Your task to perform on an android device: Search for "logitech g933" on bestbuy, select the first entry, add it to the cart, then select checkout. Image 0: 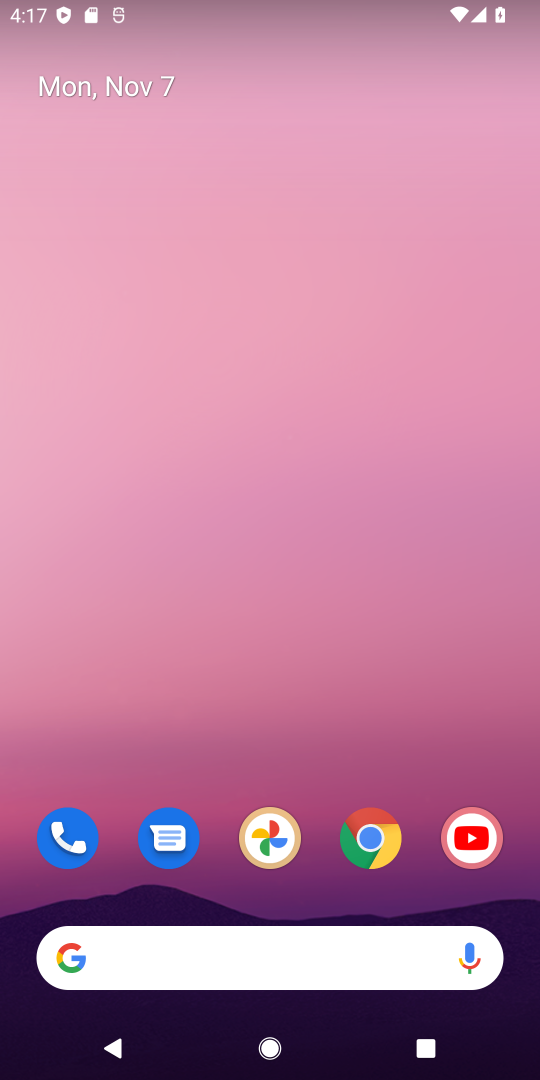
Step 0: click (371, 847)
Your task to perform on an android device: Search for "logitech g933" on bestbuy, select the first entry, add it to the cart, then select checkout. Image 1: 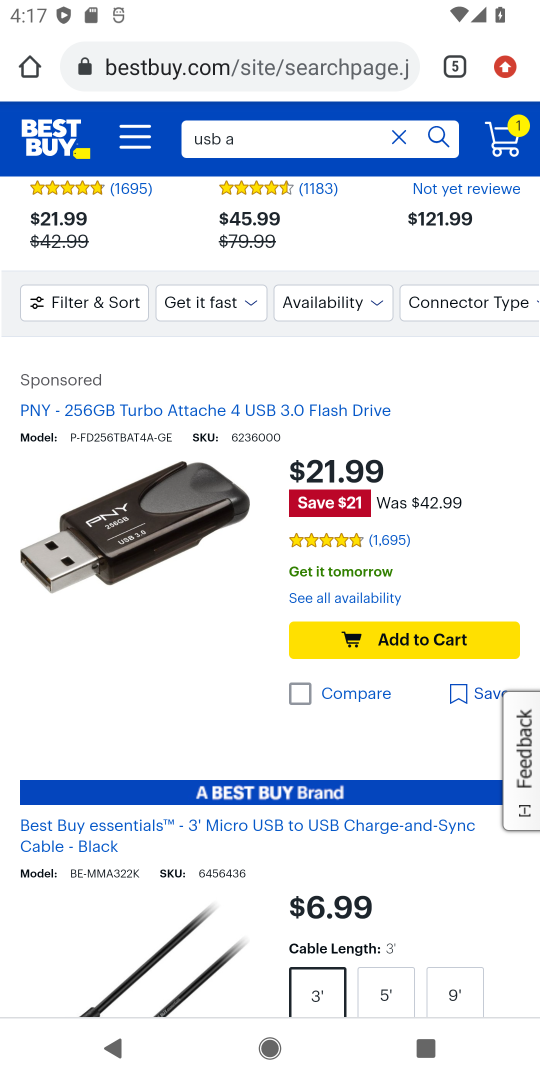
Step 1: click (400, 142)
Your task to perform on an android device: Search for "logitech g933" on bestbuy, select the first entry, add it to the cart, then select checkout. Image 2: 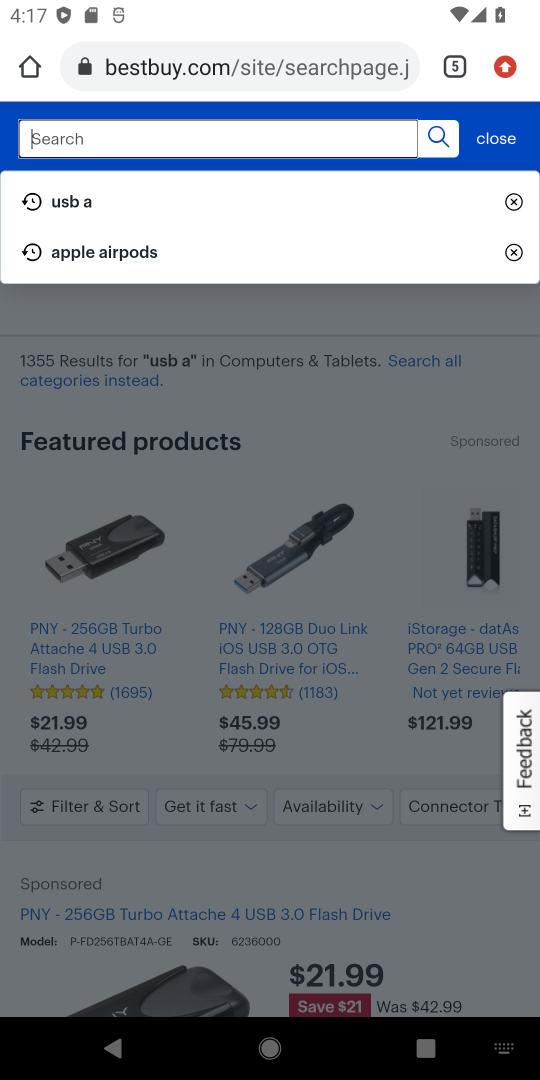
Step 2: type "logitech g933"
Your task to perform on an android device: Search for "logitech g933" on bestbuy, select the first entry, add it to the cart, then select checkout. Image 3: 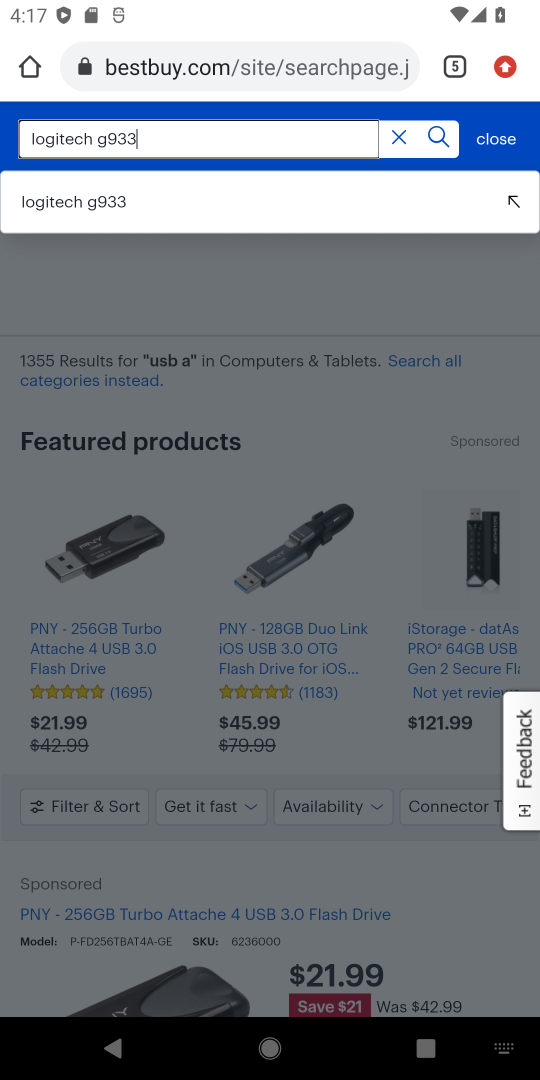
Step 3: click (438, 129)
Your task to perform on an android device: Search for "logitech g933" on bestbuy, select the first entry, add it to the cart, then select checkout. Image 4: 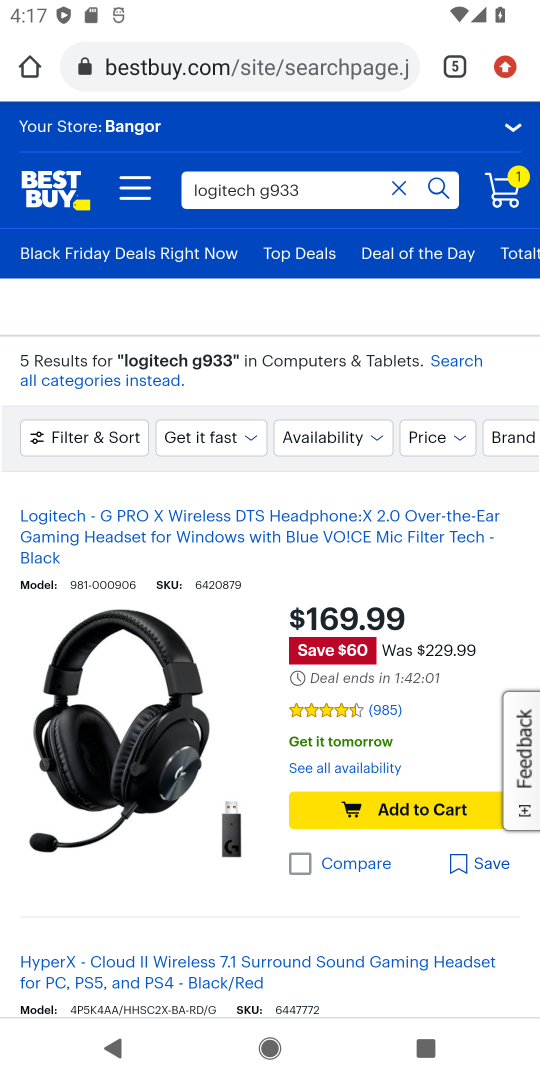
Step 4: click (398, 816)
Your task to perform on an android device: Search for "logitech g933" on bestbuy, select the first entry, add it to the cart, then select checkout. Image 5: 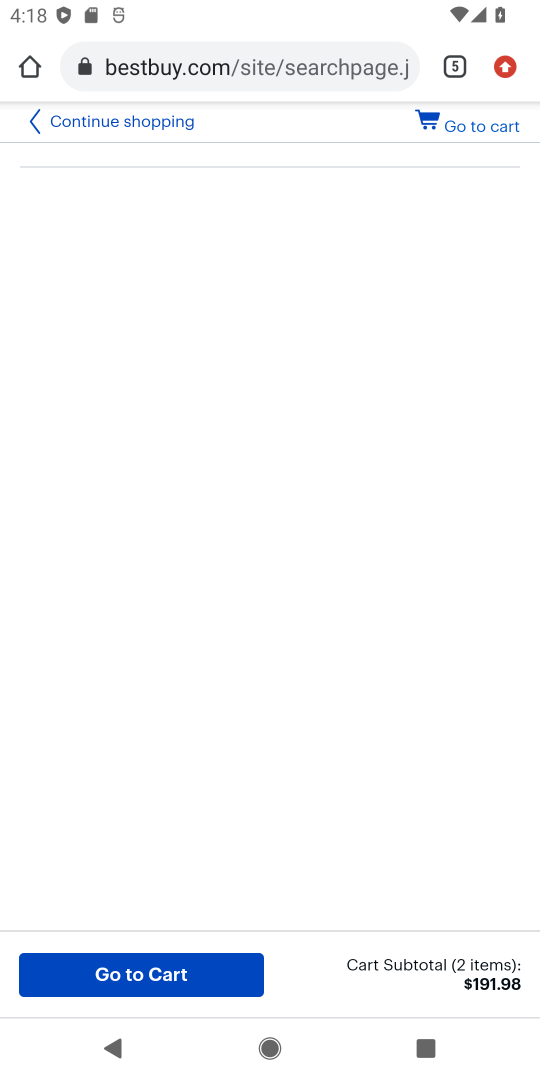
Step 5: task complete